Your task to perform on an android device: move a message to another label in the gmail app Image 0: 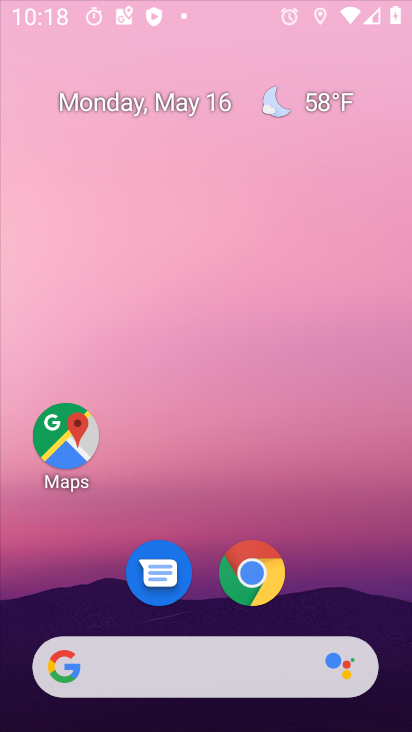
Step 0: drag from (371, 624) to (176, 53)
Your task to perform on an android device: move a message to another label in the gmail app Image 1: 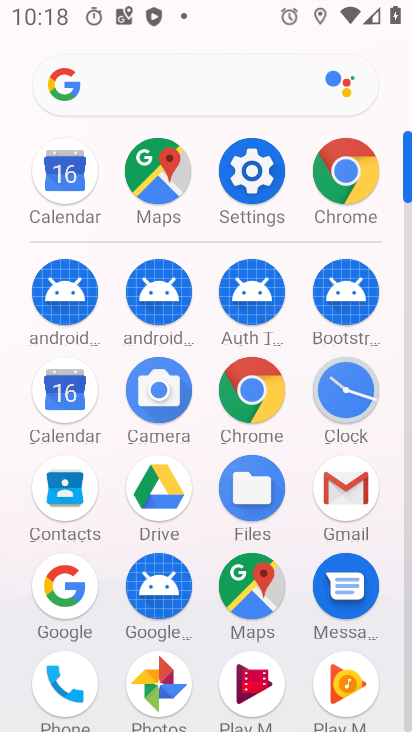
Step 1: click (239, 592)
Your task to perform on an android device: move a message to another label in the gmail app Image 2: 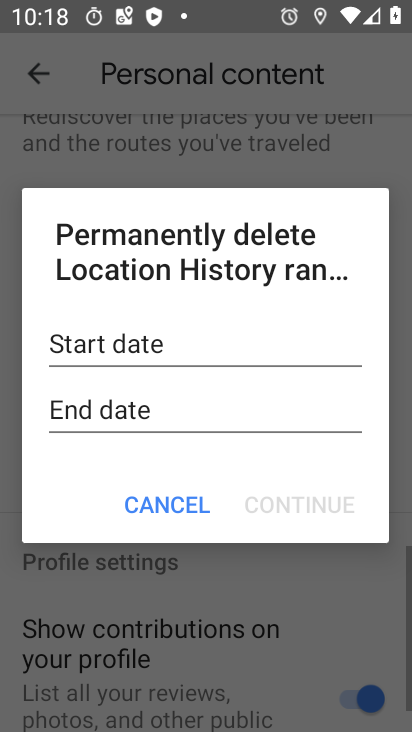
Step 2: click (177, 508)
Your task to perform on an android device: move a message to another label in the gmail app Image 3: 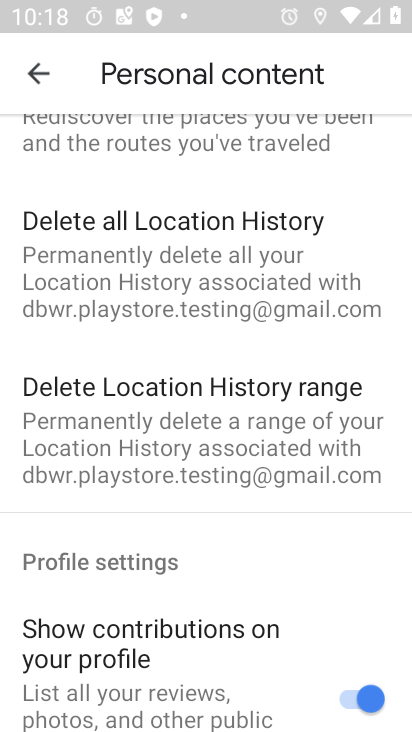
Step 3: click (39, 82)
Your task to perform on an android device: move a message to another label in the gmail app Image 4: 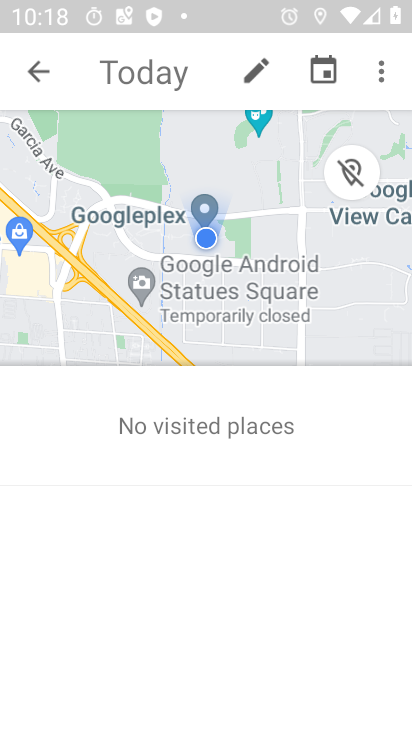
Step 4: click (31, 71)
Your task to perform on an android device: move a message to another label in the gmail app Image 5: 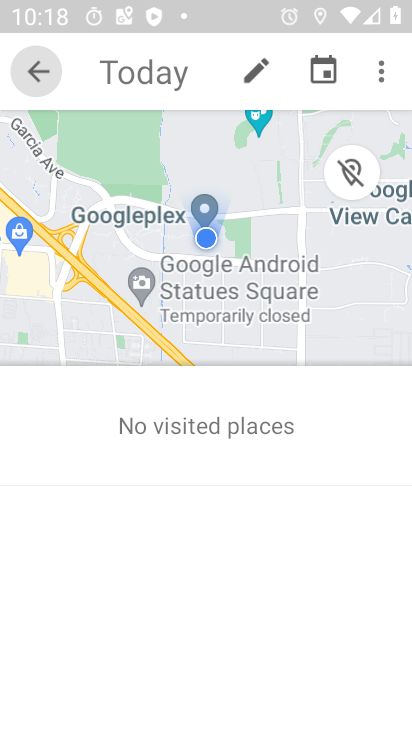
Step 5: click (31, 60)
Your task to perform on an android device: move a message to another label in the gmail app Image 6: 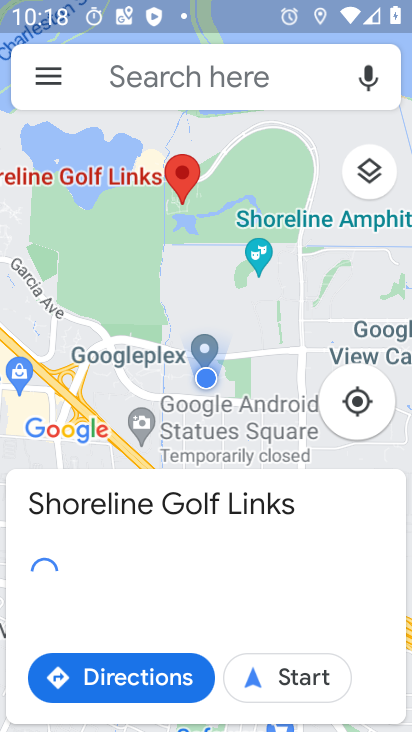
Step 6: click (62, 80)
Your task to perform on an android device: move a message to another label in the gmail app Image 7: 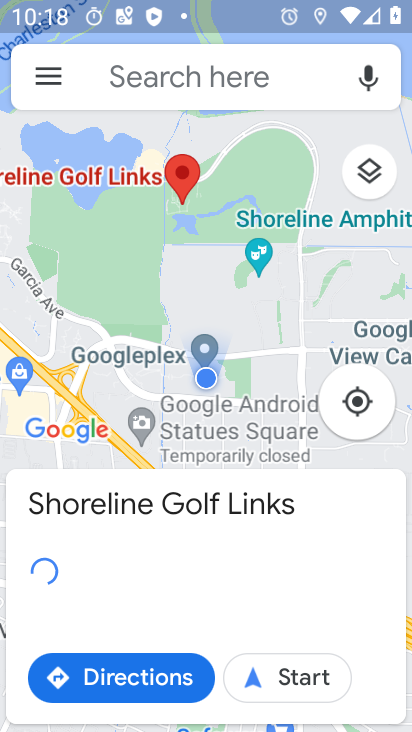
Step 7: press back button
Your task to perform on an android device: move a message to another label in the gmail app Image 8: 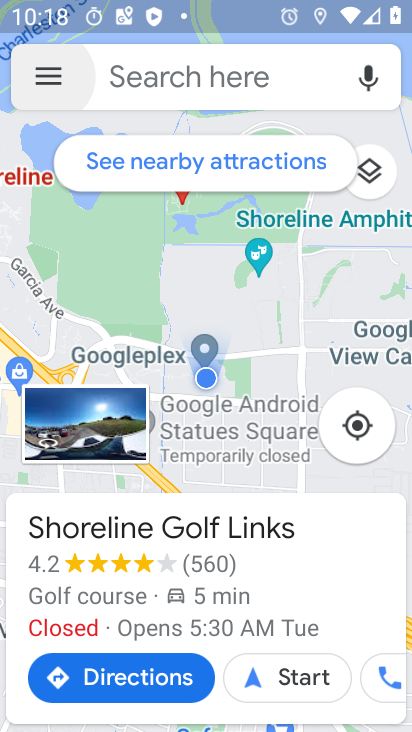
Step 8: press back button
Your task to perform on an android device: move a message to another label in the gmail app Image 9: 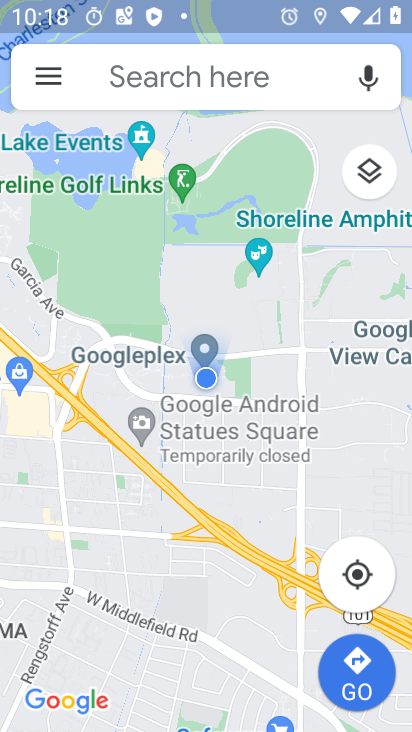
Step 9: press home button
Your task to perform on an android device: move a message to another label in the gmail app Image 10: 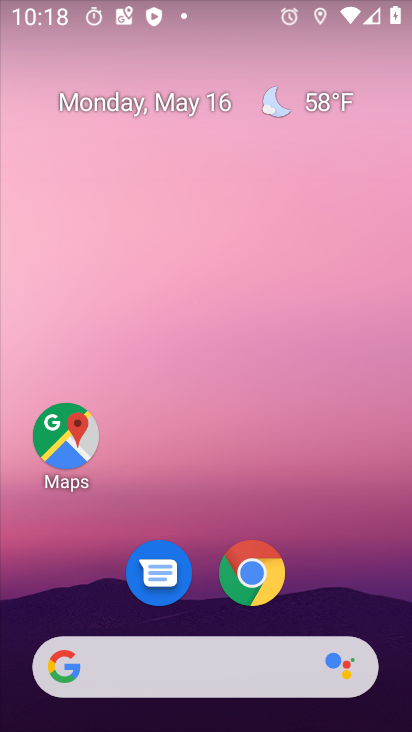
Step 10: drag from (342, 689) to (180, 121)
Your task to perform on an android device: move a message to another label in the gmail app Image 11: 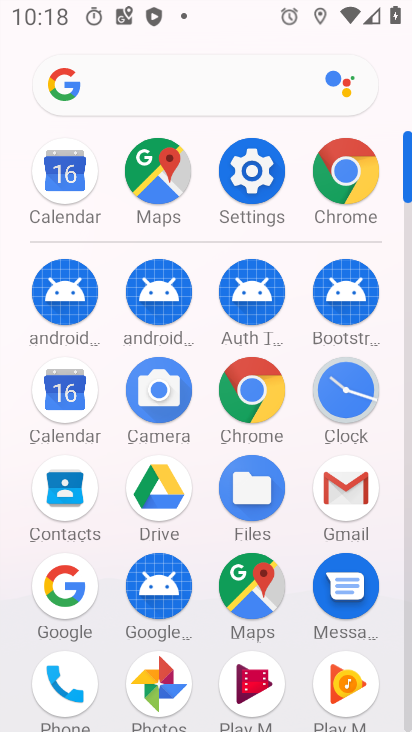
Step 11: click (329, 479)
Your task to perform on an android device: move a message to another label in the gmail app Image 12: 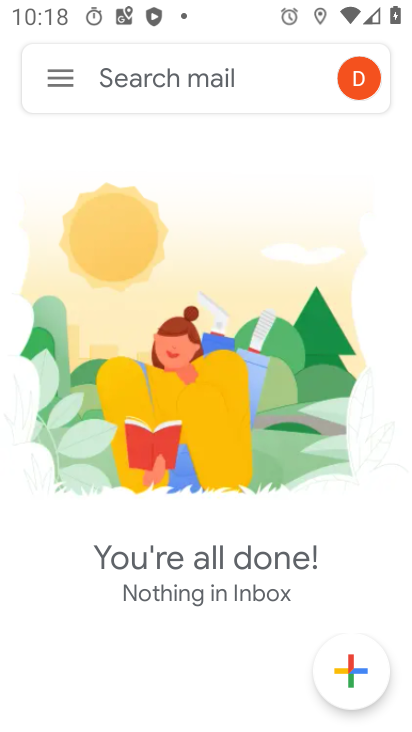
Step 12: click (74, 80)
Your task to perform on an android device: move a message to another label in the gmail app Image 13: 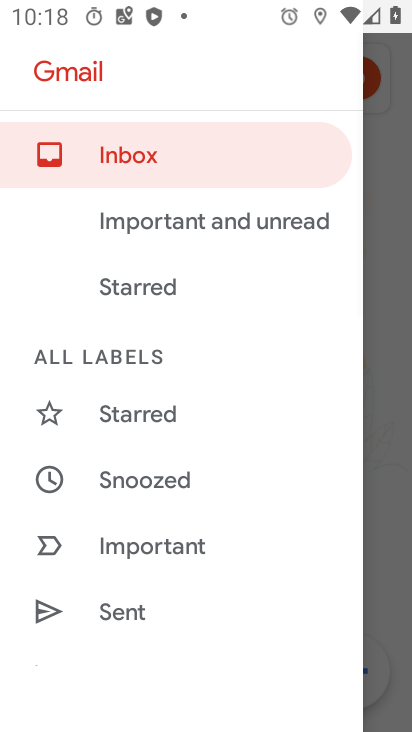
Step 13: drag from (199, 586) to (84, 75)
Your task to perform on an android device: move a message to another label in the gmail app Image 14: 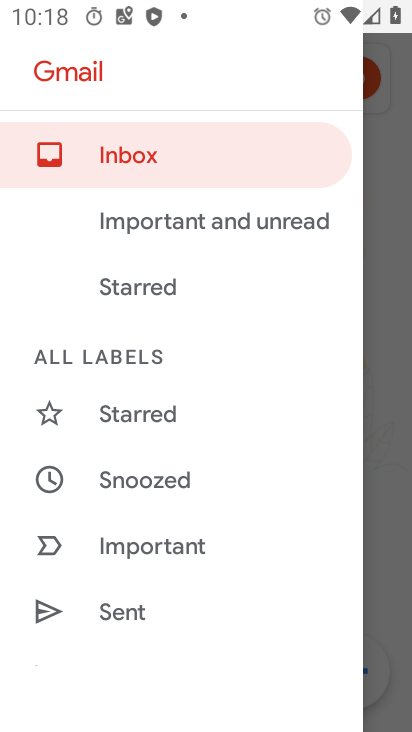
Step 14: drag from (165, 483) to (124, 34)
Your task to perform on an android device: move a message to another label in the gmail app Image 15: 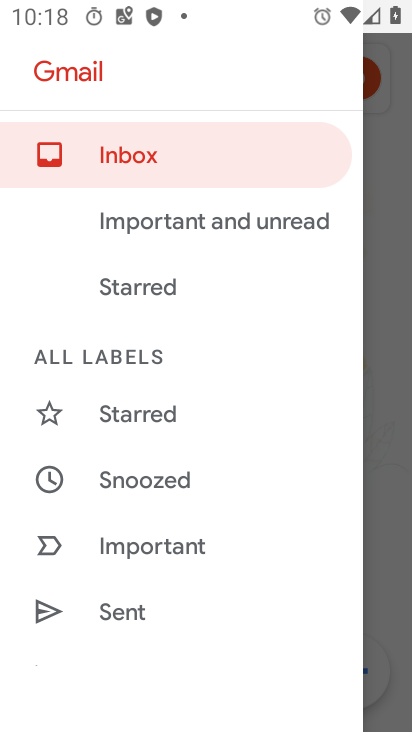
Step 15: drag from (87, 611) to (107, 192)
Your task to perform on an android device: move a message to another label in the gmail app Image 16: 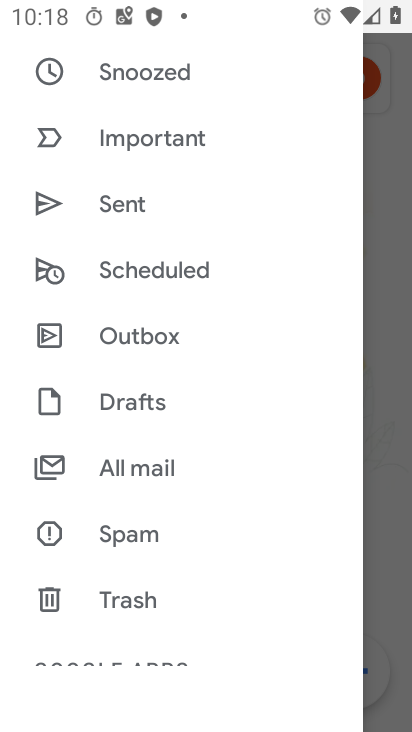
Step 16: click (133, 470)
Your task to perform on an android device: move a message to another label in the gmail app Image 17: 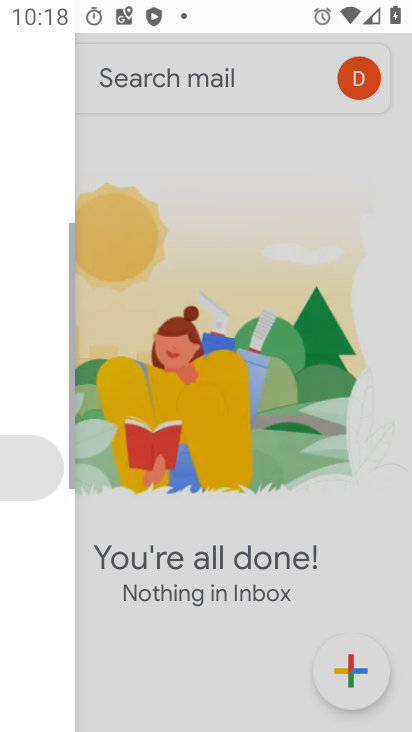
Step 17: click (133, 471)
Your task to perform on an android device: move a message to another label in the gmail app Image 18: 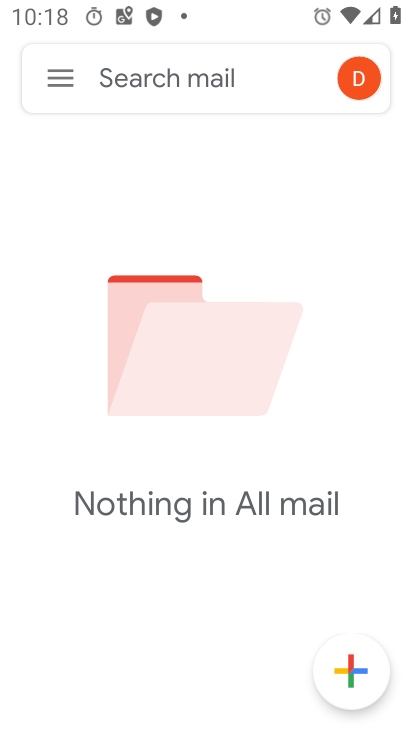
Step 18: task complete